Your task to perform on an android device: star an email in the gmail app Image 0: 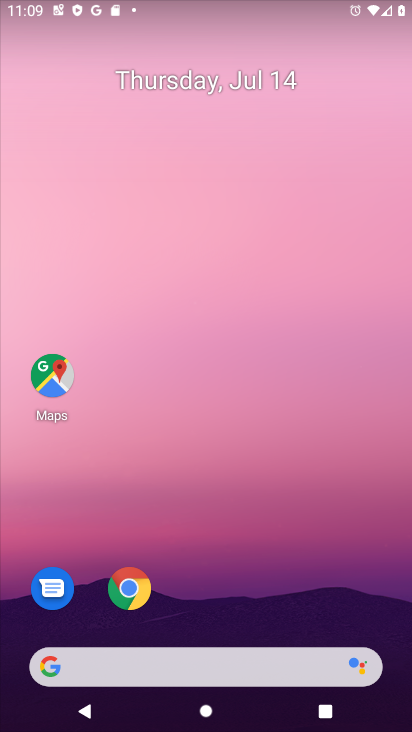
Step 0: press home button
Your task to perform on an android device: star an email in the gmail app Image 1: 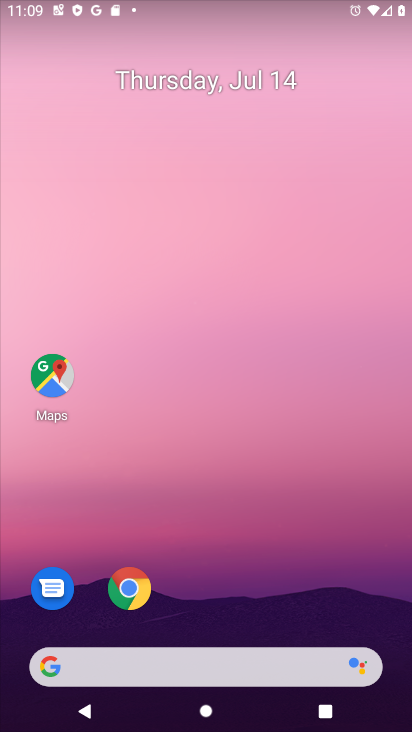
Step 1: drag from (253, 569) to (270, 73)
Your task to perform on an android device: star an email in the gmail app Image 2: 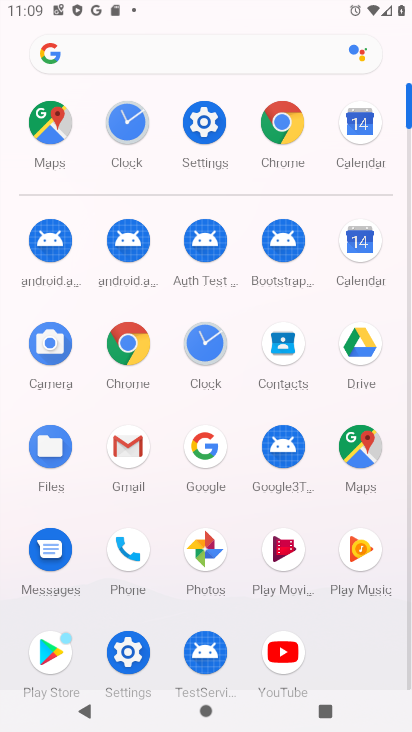
Step 2: click (124, 455)
Your task to perform on an android device: star an email in the gmail app Image 3: 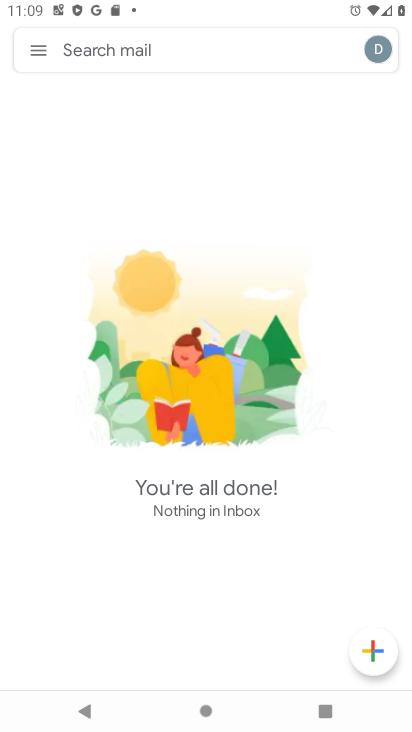
Step 3: click (27, 63)
Your task to perform on an android device: star an email in the gmail app Image 4: 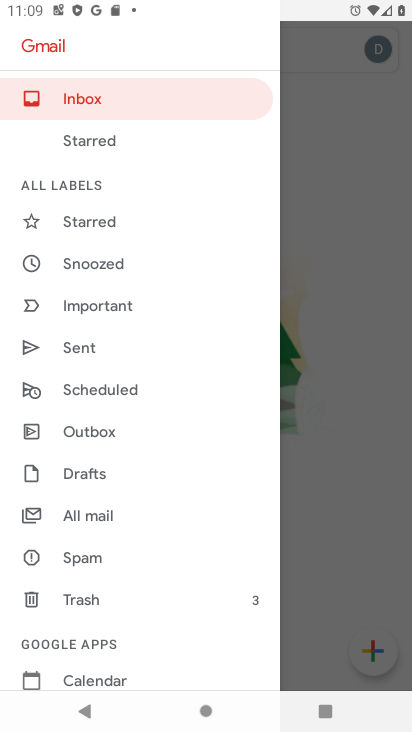
Step 4: click (355, 262)
Your task to perform on an android device: star an email in the gmail app Image 5: 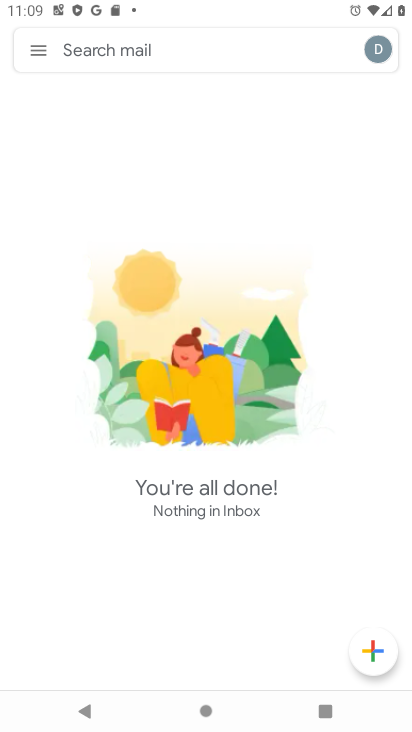
Step 5: task complete